Your task to perform on an android device: Play the last video I watched on Youtube Image 0: 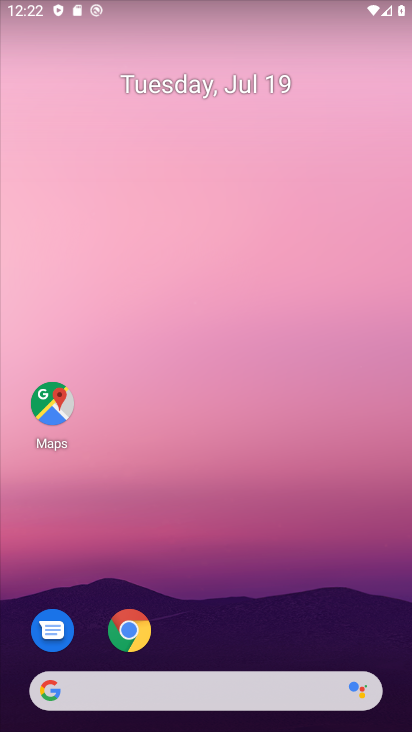
Step 0: click (169, 140)
Your task to perform on an android device: Play the last video I watched on Youtube Image 1: 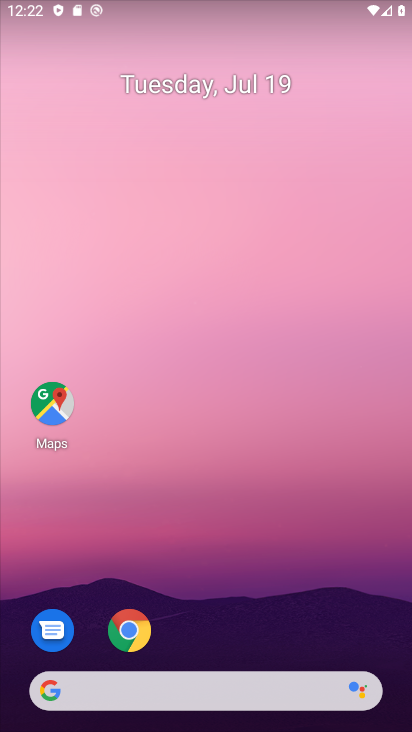
Step 1: drag from (185, 385) to (103, 99)
Your task to perform on an android device: Play the last video I watched on Youtube Image 2: 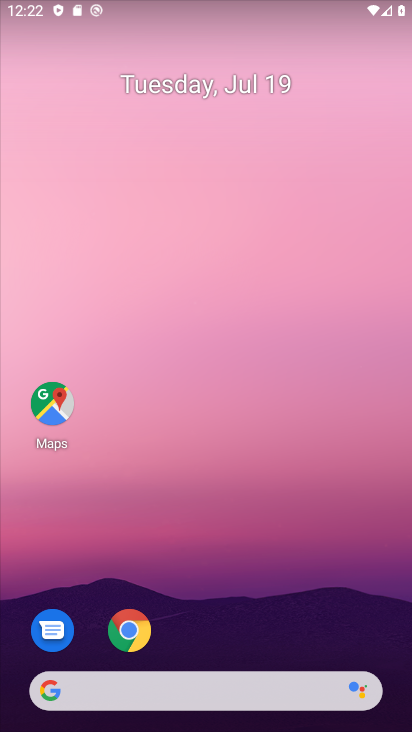
Step 2: drag from (206, 505) to (163, 198)
Your task to perform on an android device: Play the last video I watched on Youtube Image 3: 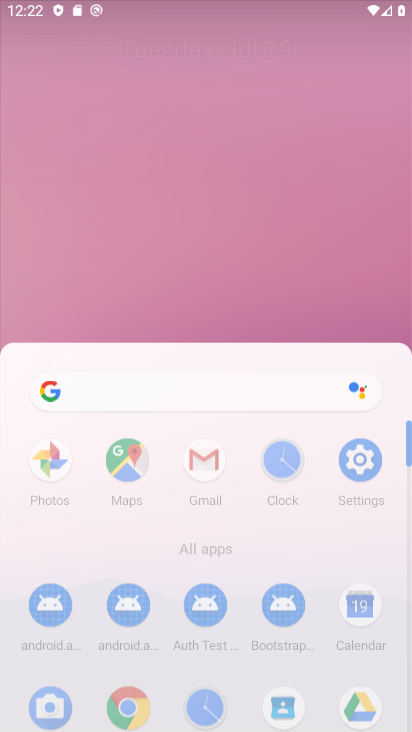
Step 3: drag from (195, 512) to (144, 158)
Your task to perform on an android device: Play the last video I watched on Youtube Image 4: 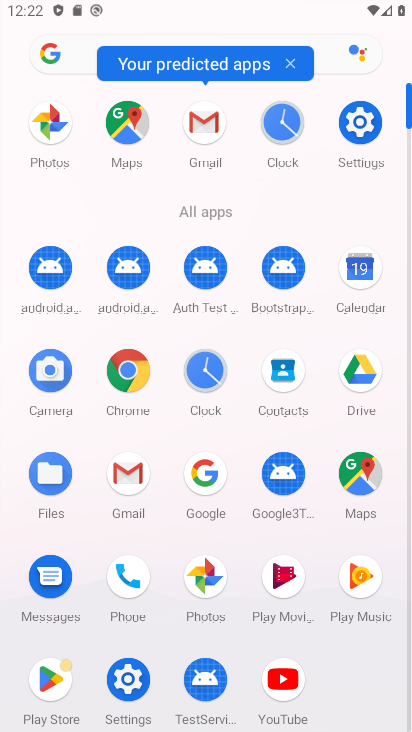
Step 4: click (284, 687)
Your task to perform on an android device: Play the last video I watched on Youtube Image 5: 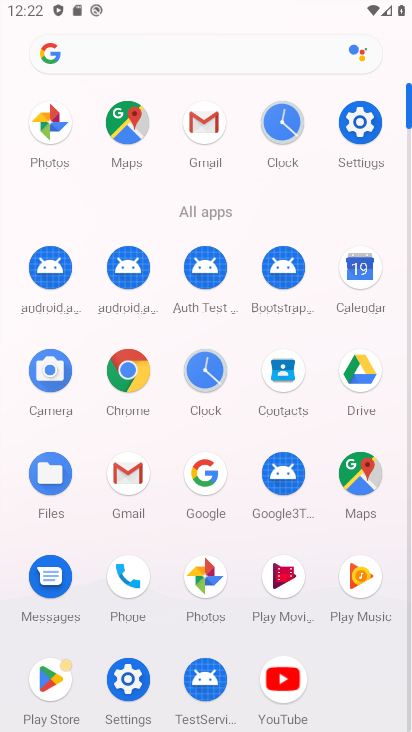
Step 5: click (282, 685)
Your task to perform on an android device: Play the last video I watched on Youtube Image 6: 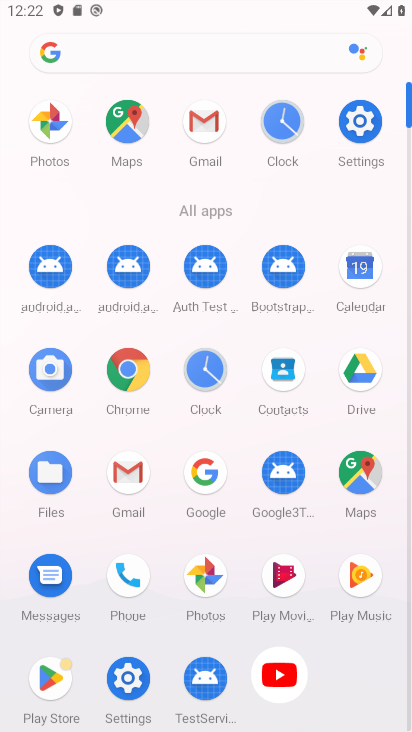
Step 6: click (282, 685)
Your task to perform on an android device: Play the last video I watched on Youtube Image 7: 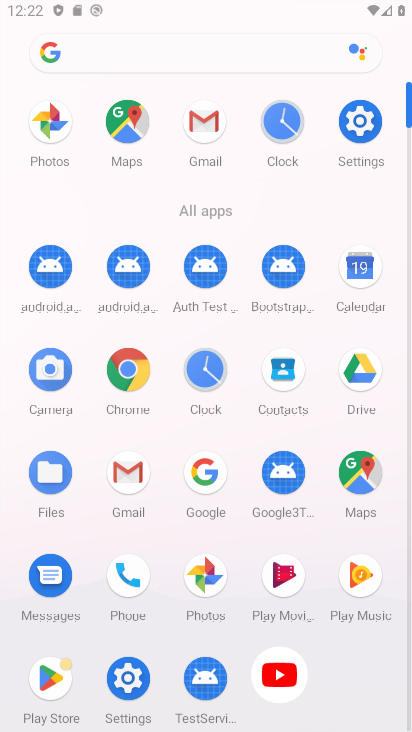
Step 7: click (282, 683)
Your task to perform on an android device: Play the last video I watched on Youtube Image 8: 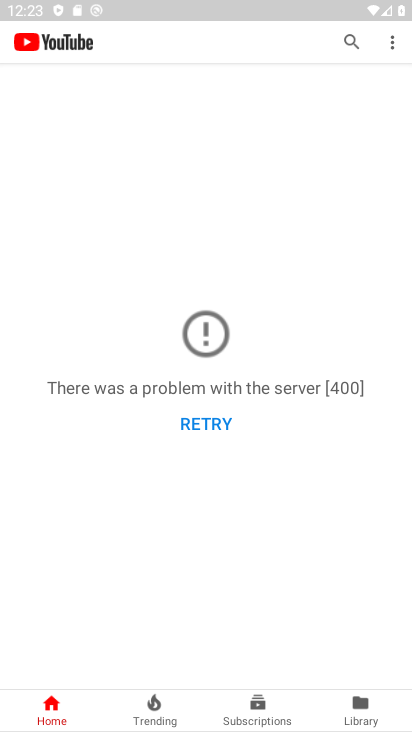
Step 8: task complete